Your task to perform on an android device: open the mobile data screen to see how much data has been used Image 0: 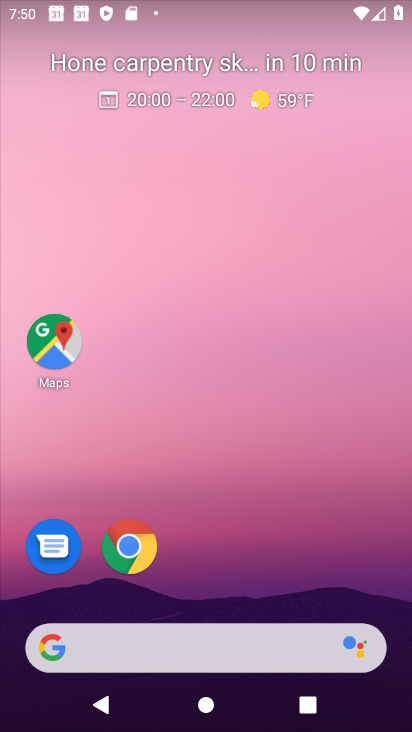
Step 0: drag from (301, 549) to (295, 508)
Your task to perform on an android device: open the mobile data screen to see how much data has been used Image 1: 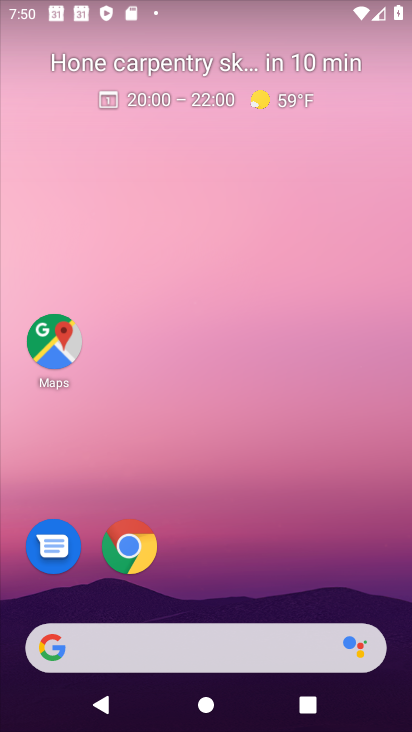
Step 1: drag from (386, 49) to (357, 152)
Your task to perform on an android device: open the mobile data screen to see how much data has been used Image 2: 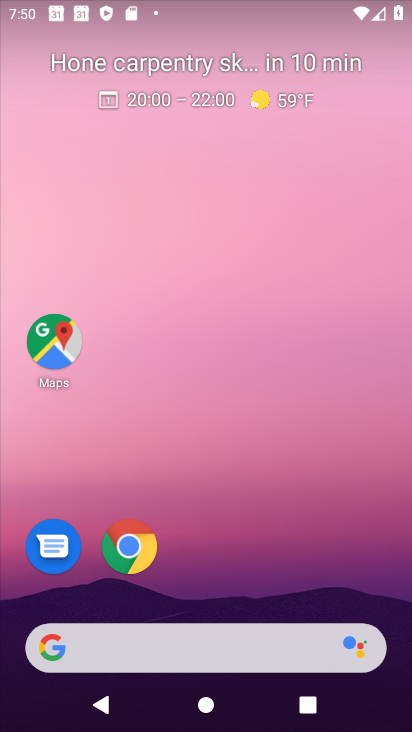
Step 2: drag from (361, 10) to (307, 434)
Your task to perform on an android device: open the mobile data screen to see how much data has been used Image 3: 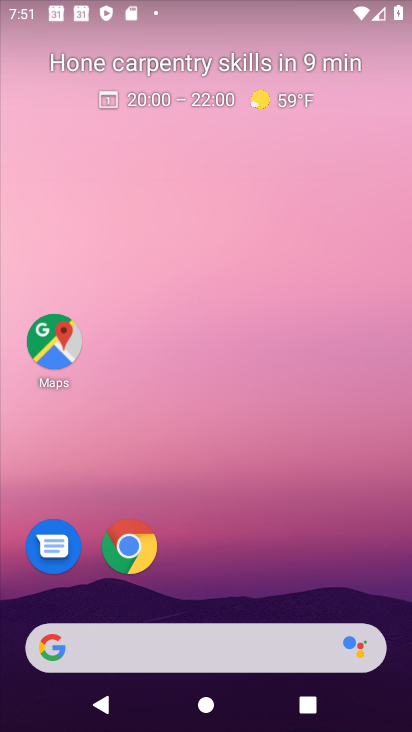
Step 3: drag from (306, 3) to (274, 400)
Your task to perform on an android device: open the mobile data screen to see how much data has been used Image 4: 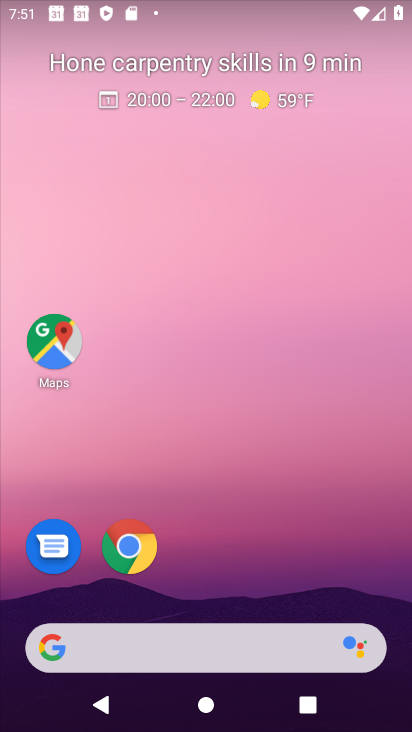
Step 4: click (338, 227)
Your task to perform on an android device: open the mobile data screen to see how much data has been used Image 5: 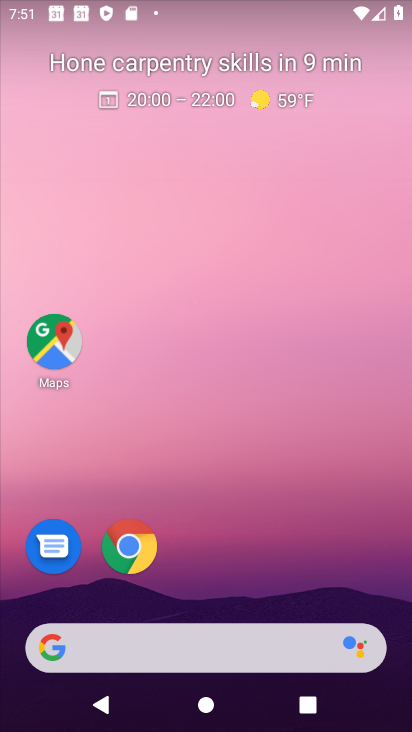
Step 5: drag from (323, 14) to (255, 448)
Your task to perform on an android device: open the mobile data screen to see how much data has been used Image 6: 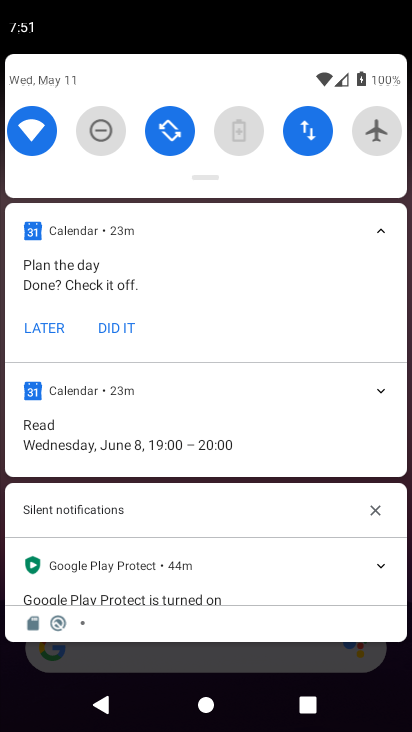
Step 6: click (312, 135)
Your task to perform on an android device: open the mobile data screen to see how much data has been used Image 7: 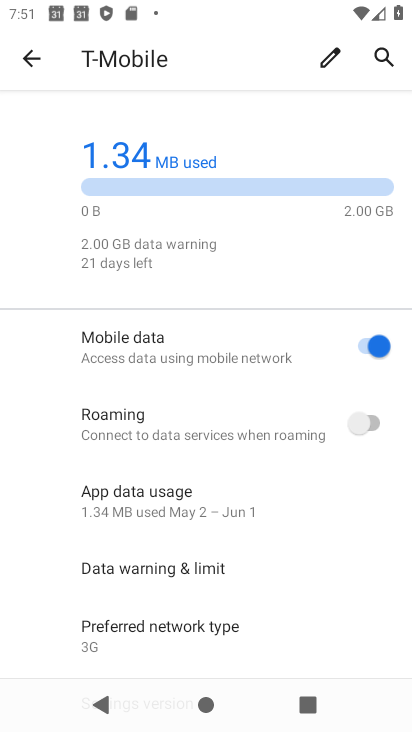
Step 7: task complete